Your task to perform on an android device: turn off notifications settings in the gmail app Image 0: 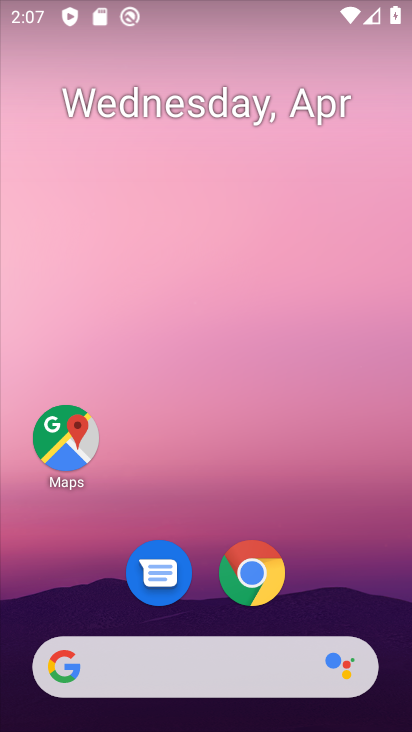
Step 0: drag from (329, 585) to (343, 139)
Your task to perform on an android device: turn off notifications settings in the gmail app Image 1: 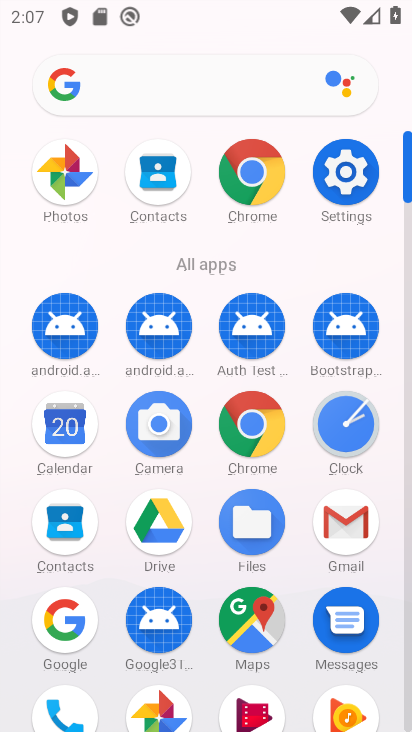
Step 1: click (335, 526)
Your task to perform on an android device: turn off notifications settings in the gmail app Image 2: 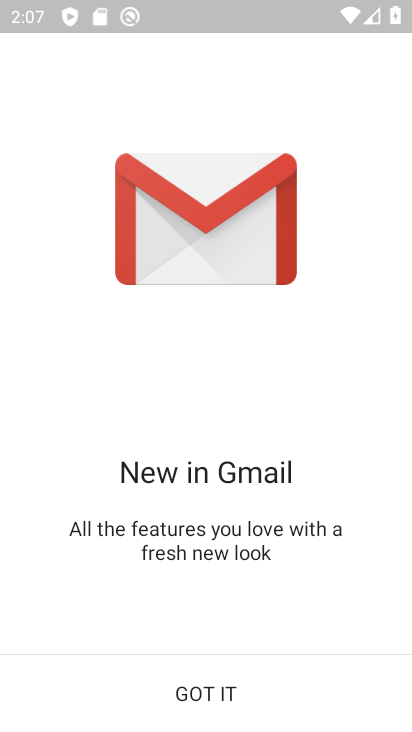
Step 2: click (220, 694)
Your task to perform on an android device: turn off notifications settings in the gmail app Image 3: 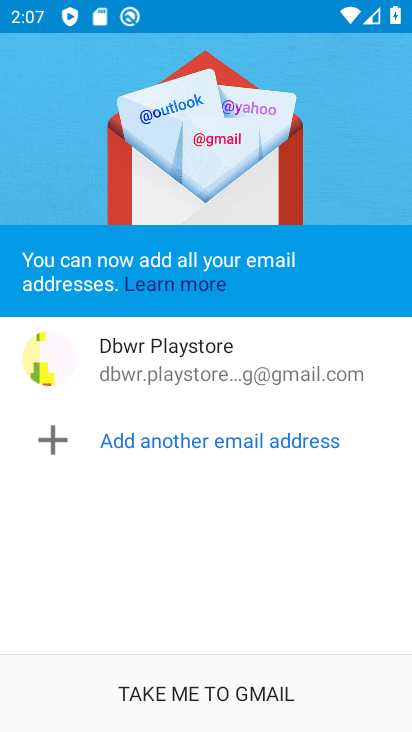
Step 3: click (263, 689)
Your task to perform on an android device: turn off notifications settings in the gmail app Image 4: 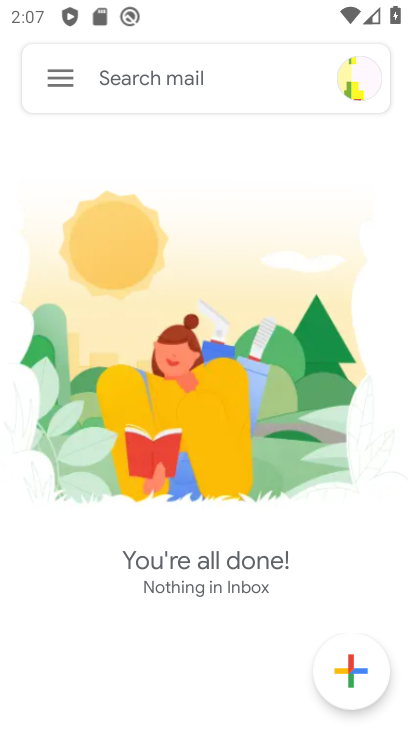
Step 4: click (65, 74)
Your task to perform on an android device: turn off notifications settings in the gmail app Image 5: 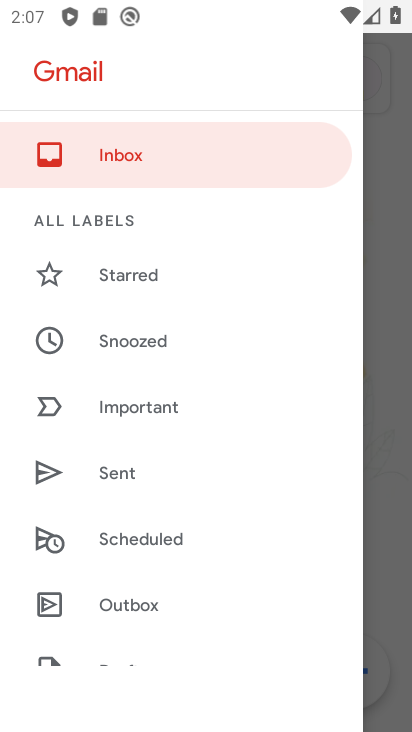
Step 5: drag from (289, 548) to (289, 364)
Your task to perform on an android device: turn off notifications settings in the gmail app Image 6: 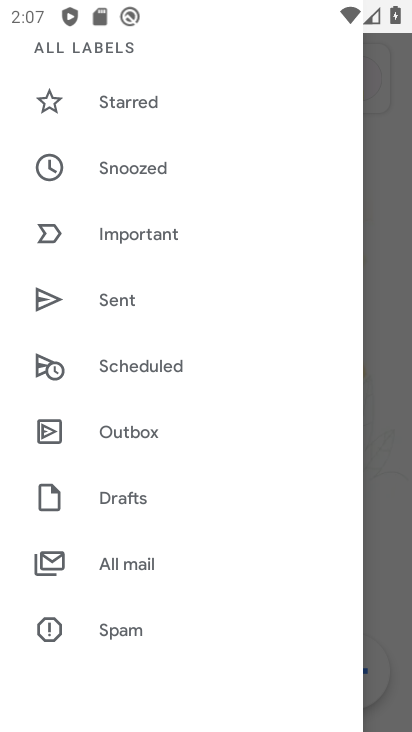
Step 6: drag from (280, 533) to (275, 347)
Your task to perform on an android device: turn off notifications settings in the gmail app Image 7: 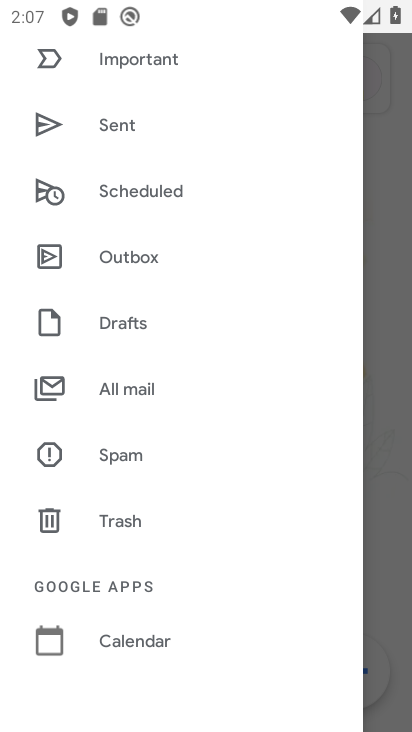
Step 7: drag from (303, 535) to (299, 349)
Your task to perform on an android device: turn off notifications settings in the gmail app Image 8: 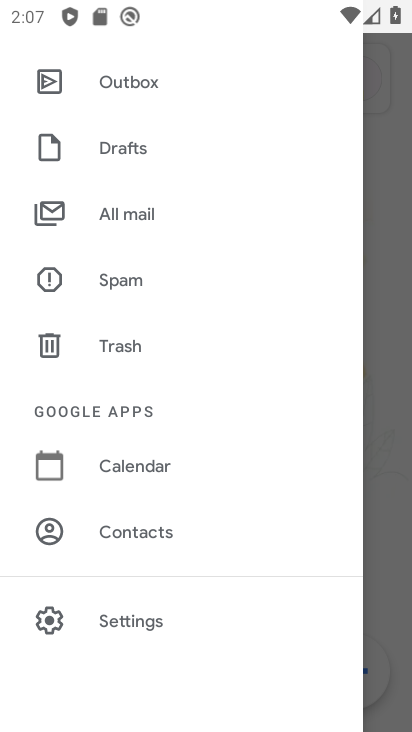
Step 8: drag from (286, 582) to (286, 427)
Your task to perform on an android device: turn off notifications settings in the gmail app Image 9: 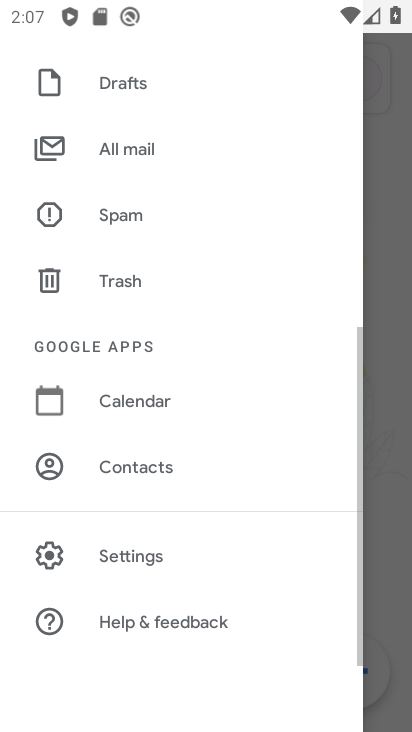
Step 9: click (151, 557)
Your task to perform on an android device: turn off notifications settings in the gmail app Image 10: 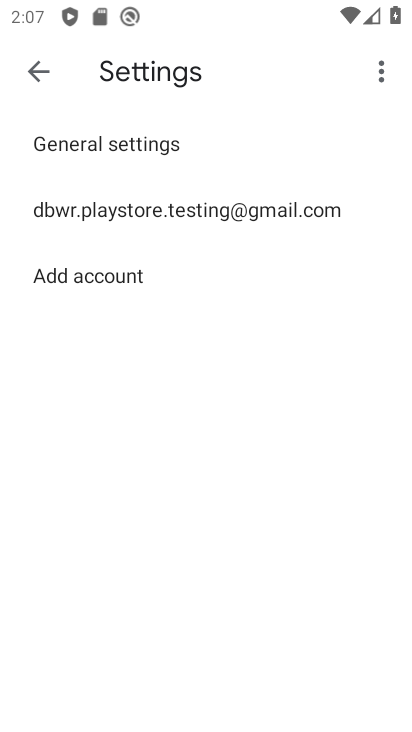
Step 10: click (234, 209)
Your task to perform on an android device: turn off notifications settings in the gmail app Image 11: 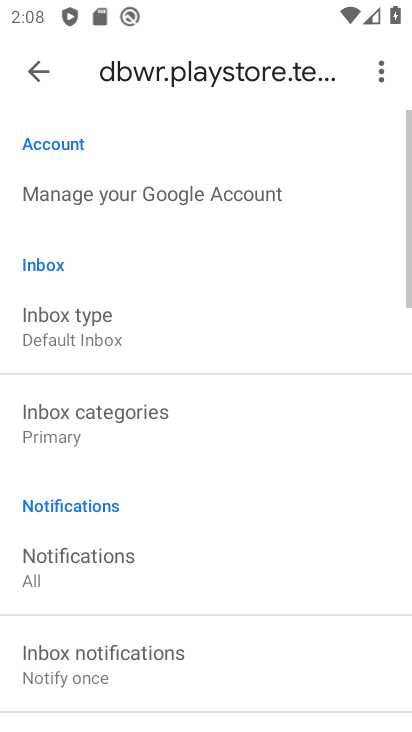
Step 11: drag from (265, 533) to (274, 366)
Your task to perform on an android device: turn off notifications settings in the gmail app Image 12: 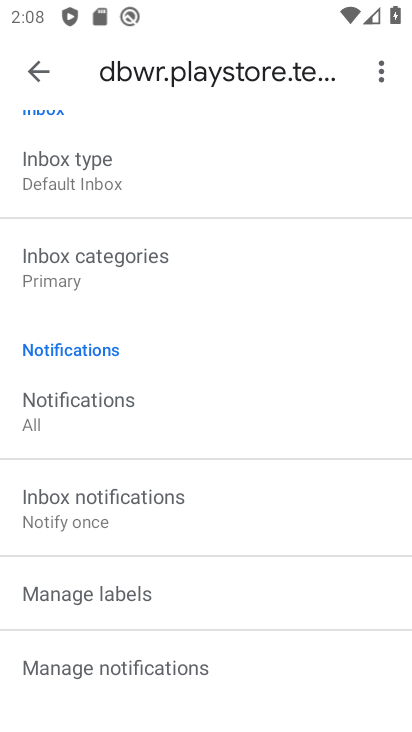
Step 12: drag from (289, 526) to (300, 360)
Your task to perform on an android device: turn off notifications settings in the gmail app Image 13: 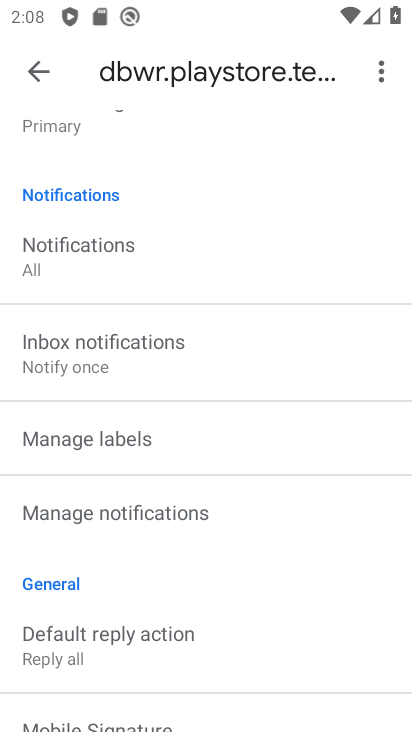
Step 13: drag from (303, 568) to (308, 381)
Your task to perform on an android device: turn off notifications settings in the gmail app Image 14: 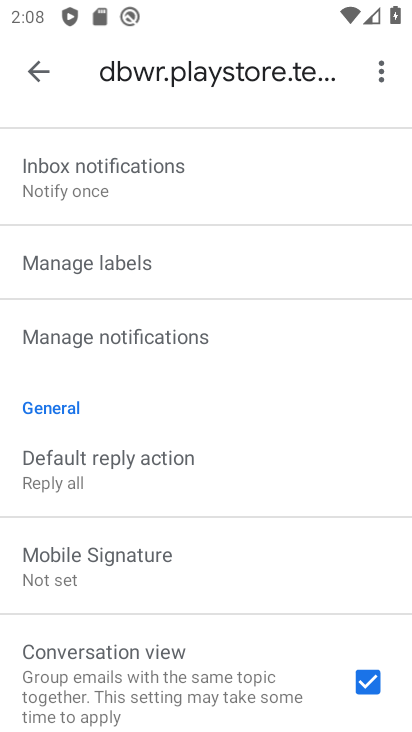
Step 14: click (194, 334)
Your task to perform on an android device: turn off notifications settings in the gmail app Image 15: 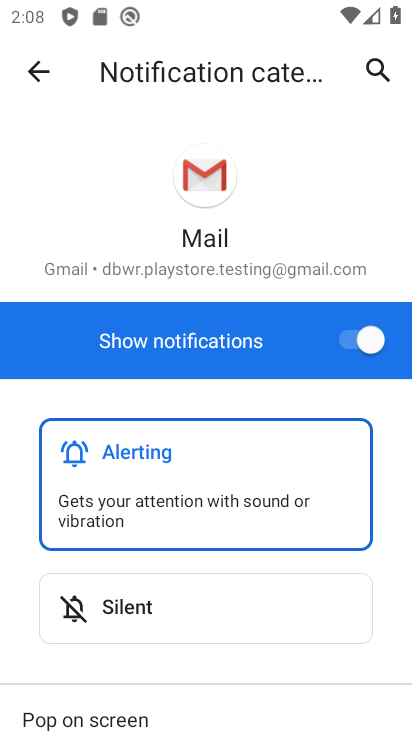
Step 15: click (369, 338)
Your task to perform on an android device: turn off notifications settings in the gmail app Image 16: 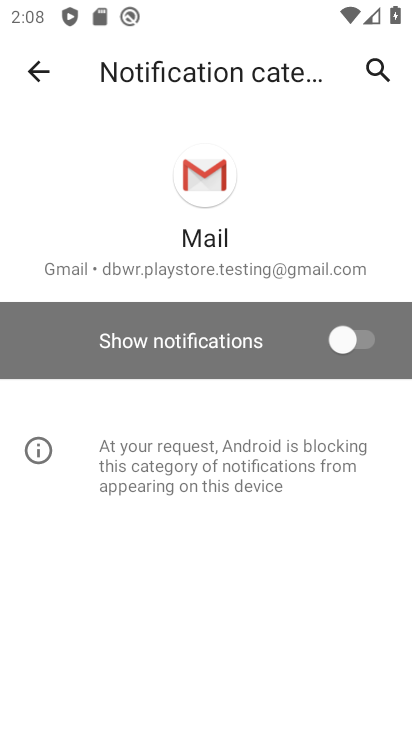
Step 16: task complete